Your task to perform on an android device: Go to Reddit.com Image 0: 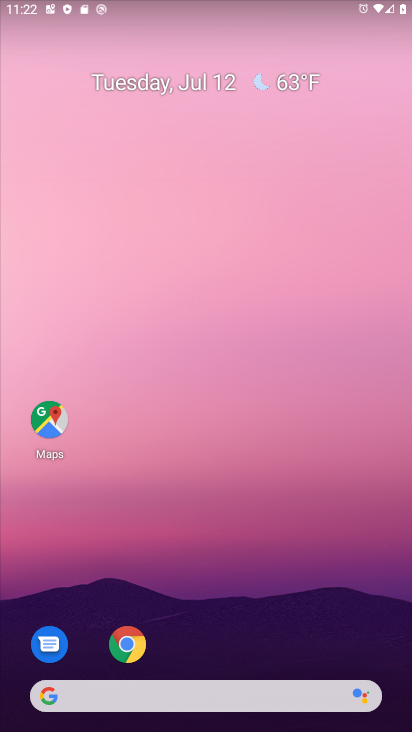
Step 0: click (129, 643)
Your task to perform on an android device: Go to Reddit.com Image 1: 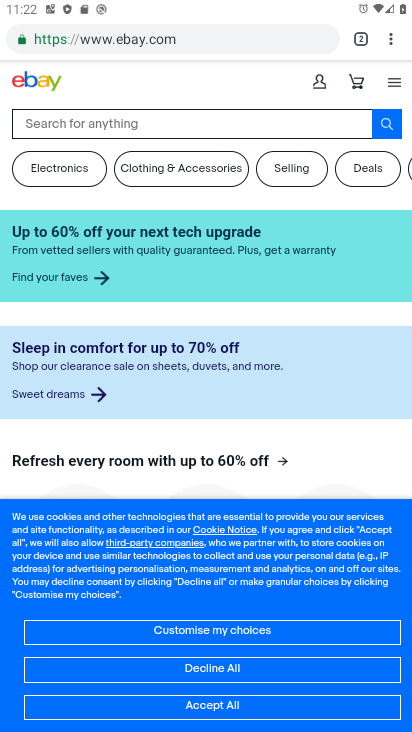
Step 1: click (231, 33)
Your task to perform on an android device: Go to Reddit.com Image 2: 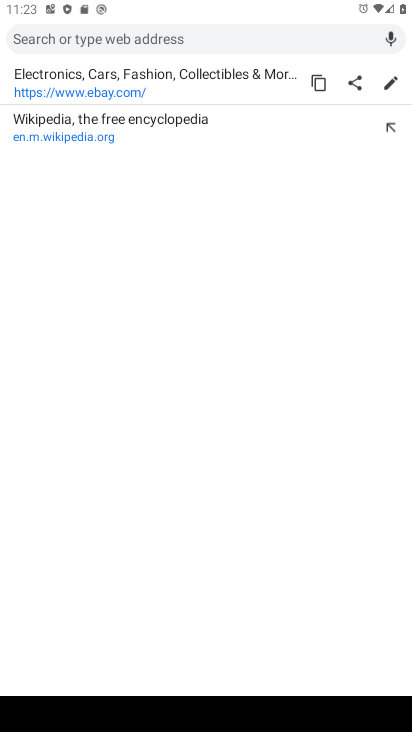
Step 2: type "Reddit.com"
Your task to perform on an android device: Go to Reddit.com Image 3: 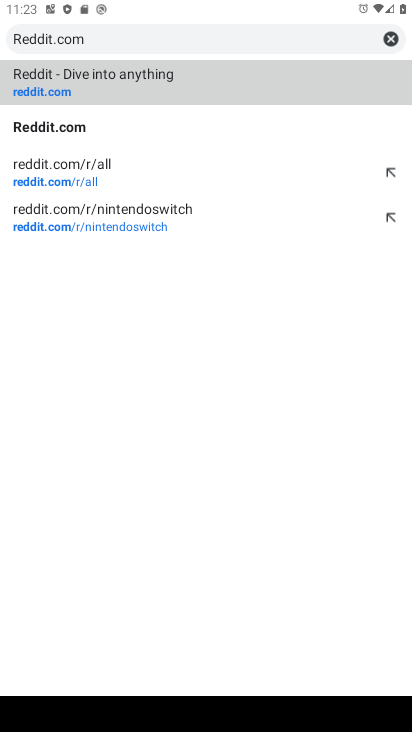
Step 3: click (66, 125)
Your task to perform on an android device: Go to Reddit.com Image 4: 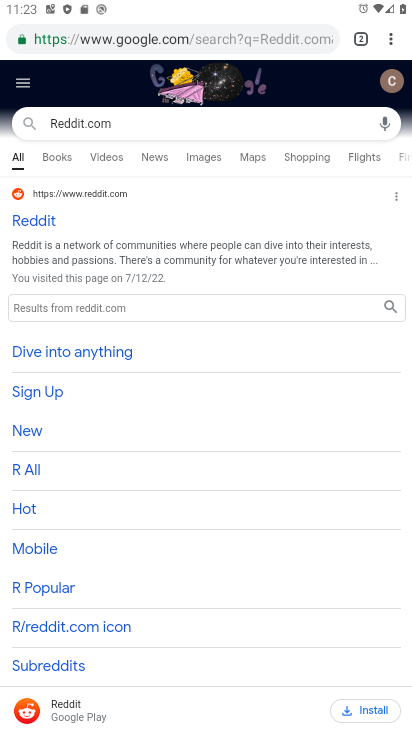
Step 4: click (45, 222)
Your task to perform on an android device: Go to Reddit.com Image 5: 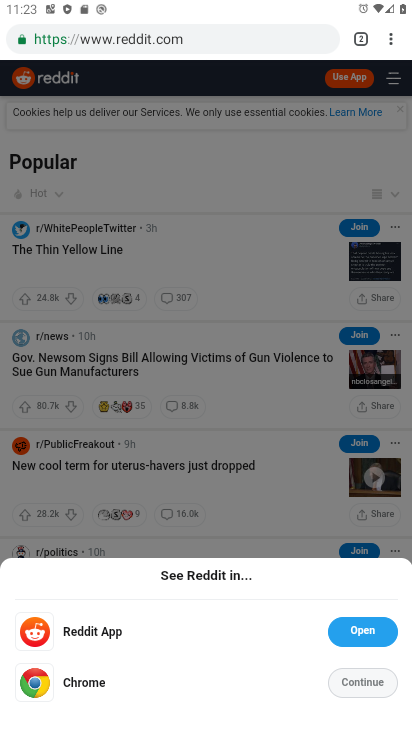
Step 5: click (343, 678)
Your task to perform on an android device: Go to Reddit.com Image 6: 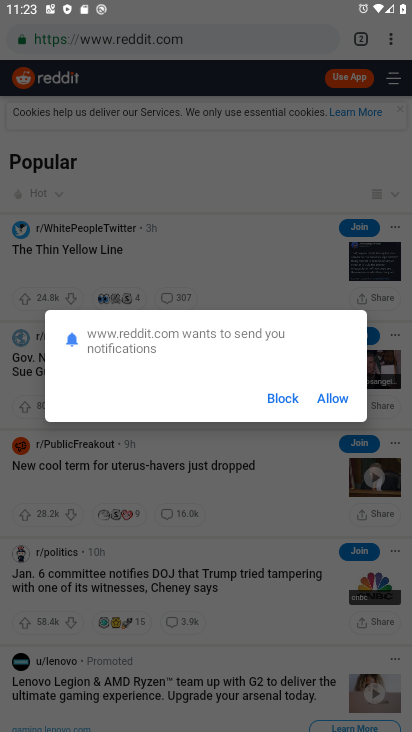
Step 6: click (336, 399)
Your task to perform on an android device: Go to Reddit.com Image 7: 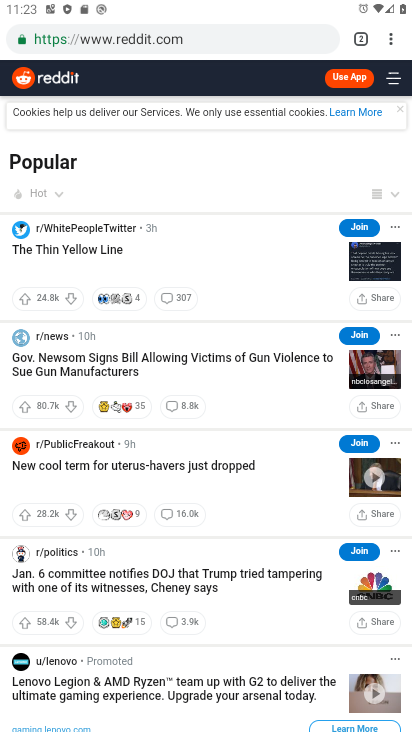
Step 7: task complete